Your task to perform on an android device: Do I have any events this weekend? Image 0: 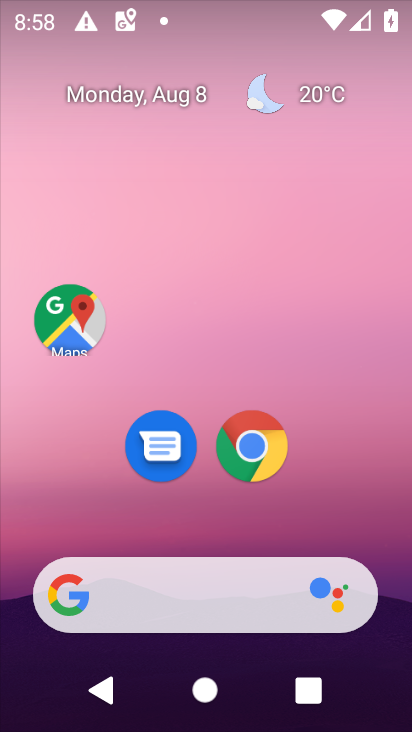
Step 0: drag from (391, 634) to (366, 172)
Your task to perform on an android device: Do I have any events this weekend? Image 1: 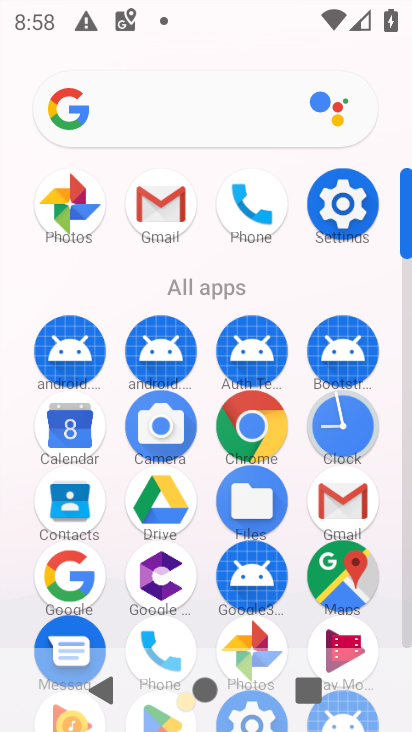
Step 1: click (68, 426)
Your task to perform on an android device: Do I have any events this weekend? Image 2: 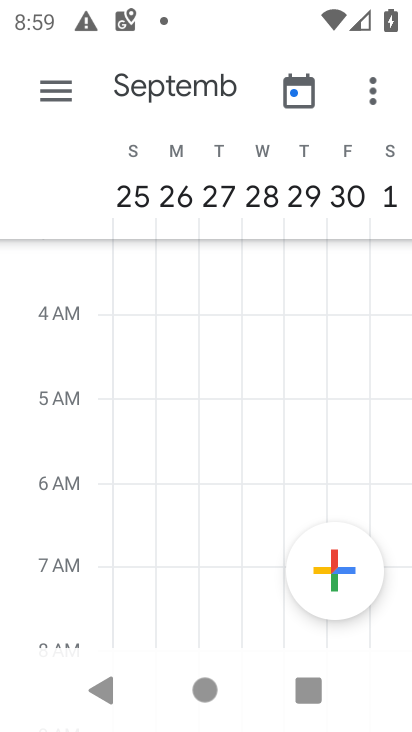
Step 2: click (202, 91)
Your task to perform on an android device: Do I have any events this weekend? Image 3: 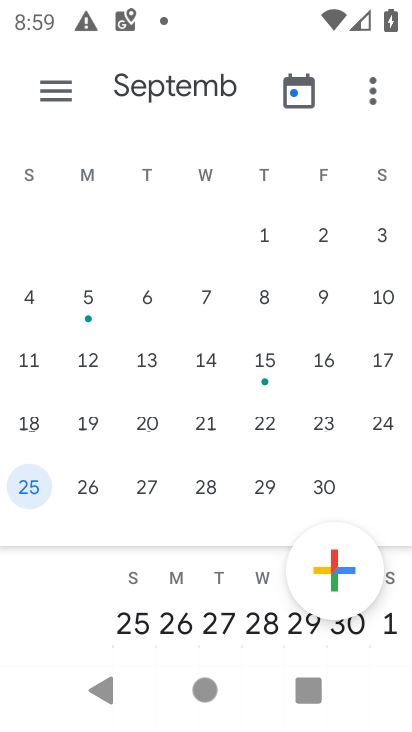
Step 3: drag from (22, 426) to (146, 471)
Your task to perform on an android device: Do I have any events this weekend? Image 4: 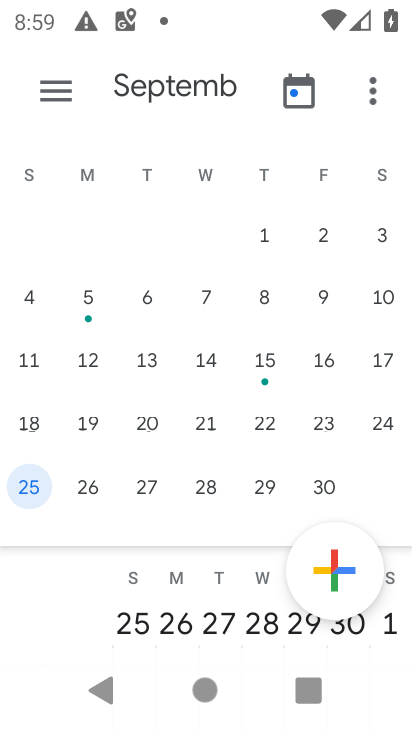
Step 4: drag from (85, 418) to (394, 392)
Your task to perform on an android device: Do I have any events this weekend? Image 5: 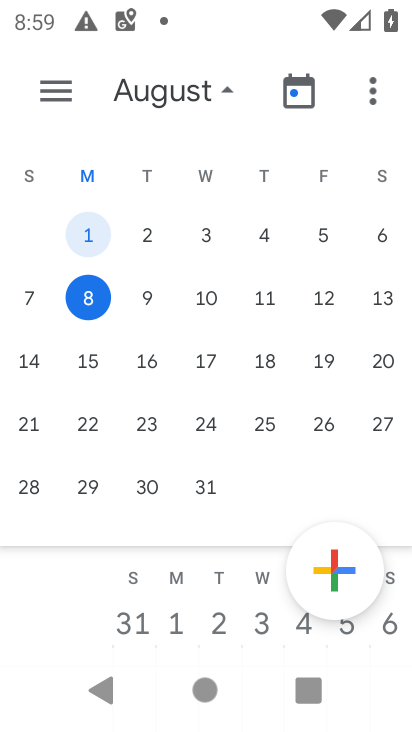
Step 5: click (82, 293)
Your task to perform on an android device: Do I have any events this weekend? Image 6: 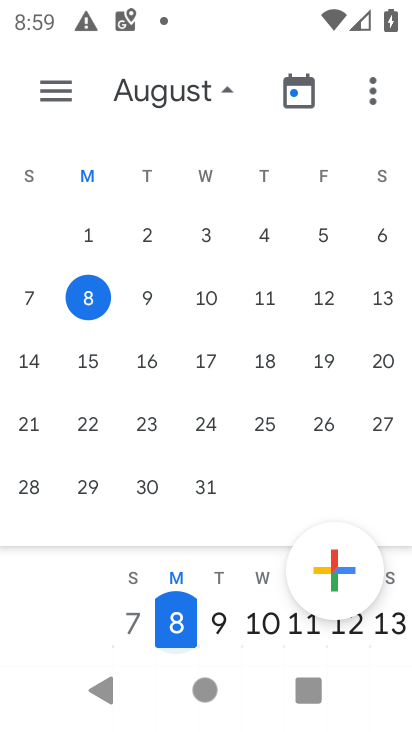
Step 6: task complete